Your task to perform on an android device: Open eBay Image 0: 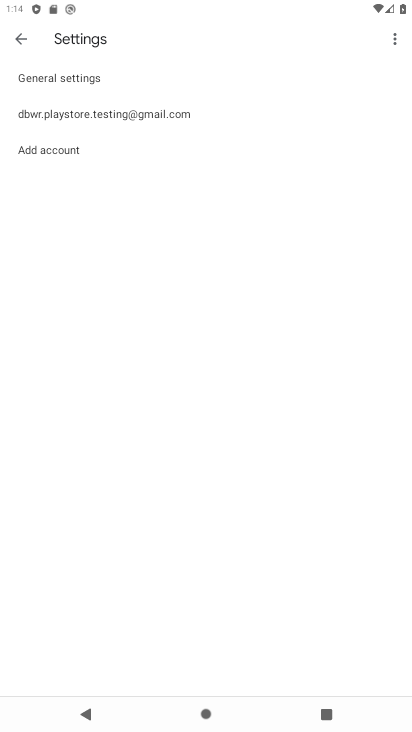
Step 0: press home button
Your task to perform on an android device: Open eBay Image 1: 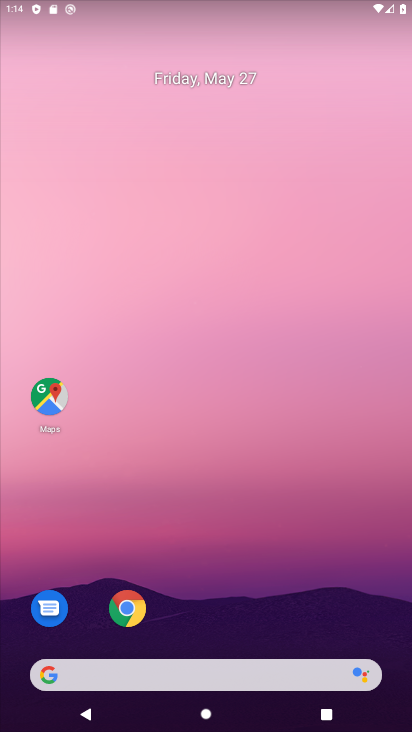
Step 1: click (127, 608)
Your task to perform on an android device: Open eBay Image 2: 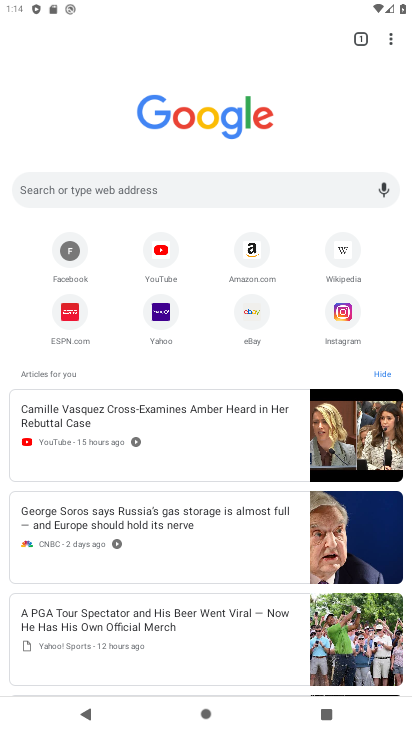
Step 2: click (180, 183)
Your task to perform on an android device: Open eBay Image 3: 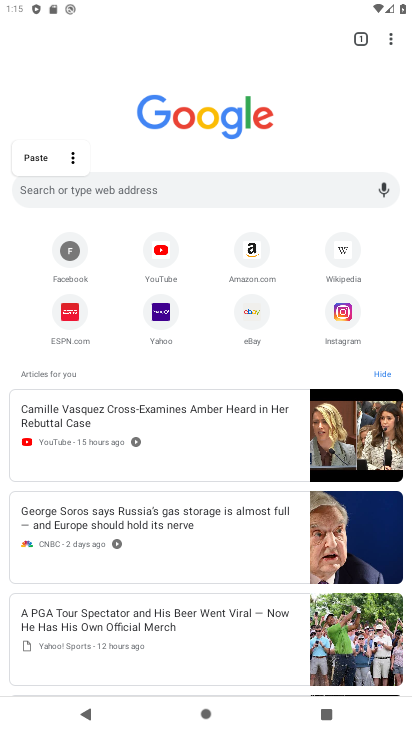
Step 3: type "ebay"
Your task to perform on an android device: Open eBay Image 4: 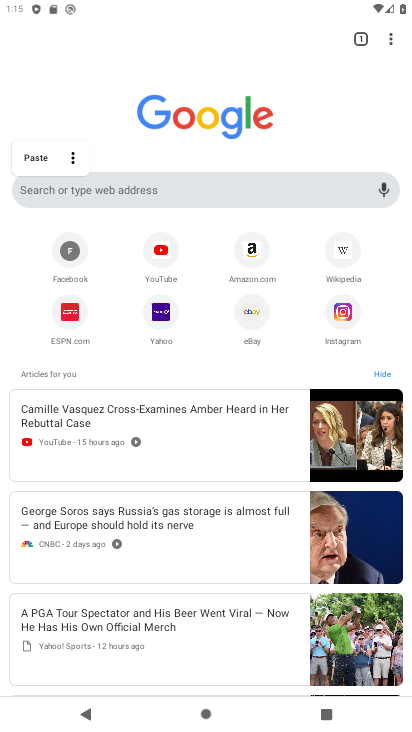
Step 4: click (189, 186)
Your task to perform on an android device: Open eBay Image 5: 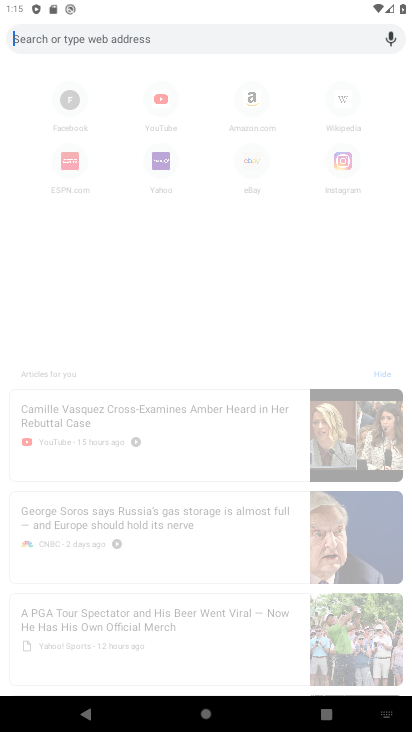
Step 5: type "ebay"
Your task to perform on an android device: Open eBay Image 6: 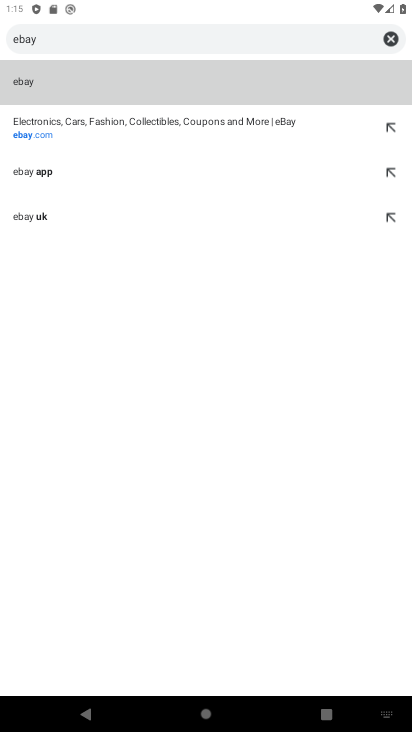
Step 6: click (23, 81)
Your task to perform on an android device: Open eBay Image 7: 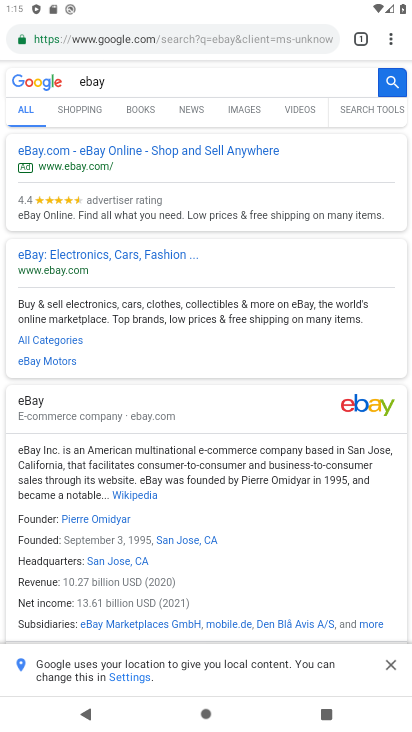
Step 7: click (70, 253)
Your task to perform on an android device: Open eBay Image 8: 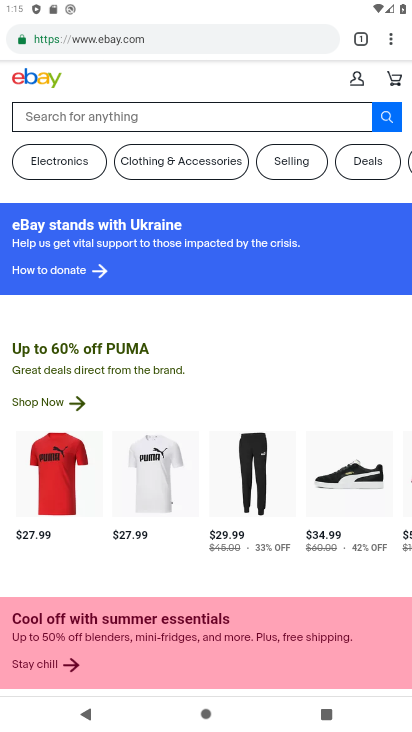
Step 8: task complete